Your task to perform on an android device: Search for sushi restaurants on Maps Image 0: 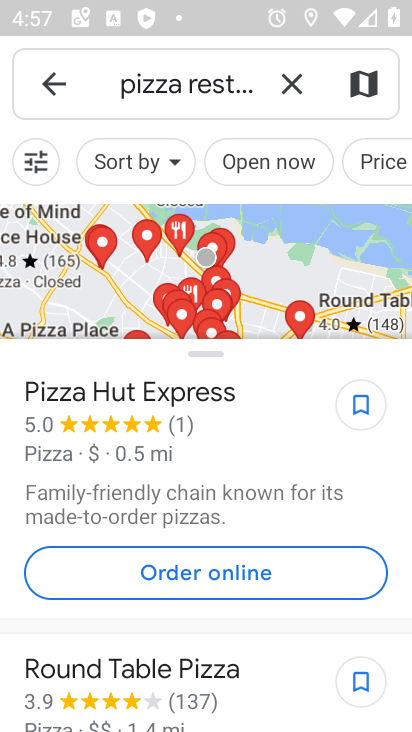
Step 0: press home button
Your task to perform on an android device: Search for sushi restaurants on Maps Image 1: 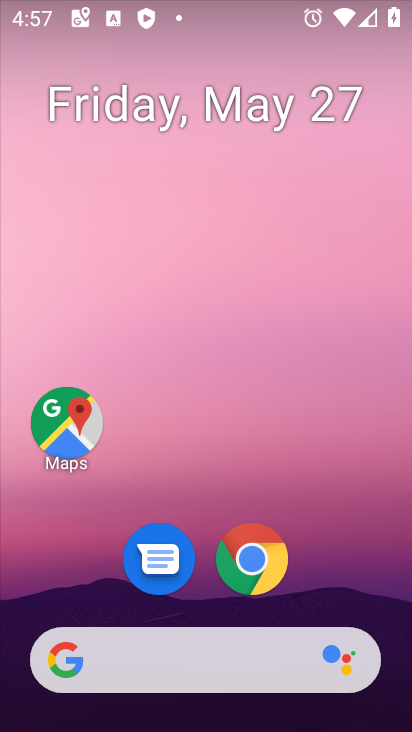
Step 1: drag from (218, 633) to (299, 75)
Your task to perform on an android device: Search for sushi restaurants on Maps Image 2: 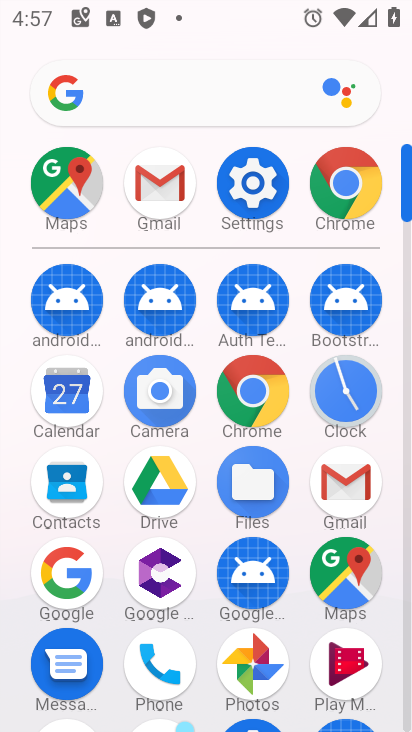
Step 2: click (365, 574)
Your task to perform on an android device: Search for sushi restaurants on Maps Image 3: 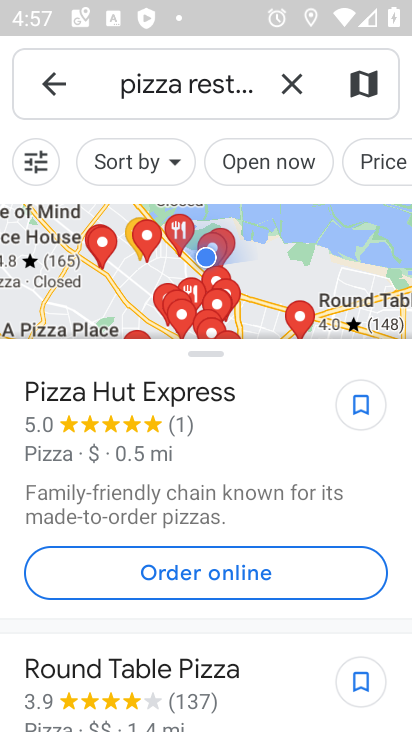
Step 3: press back button
Your task to perform on an android device: Search for sushi restaurants on Maps Image 4: 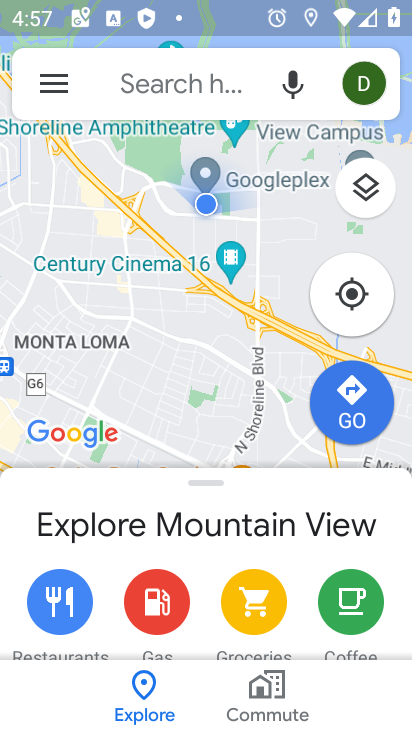
Step 4: click (143, 91)
Your task to perform on an android device: Search for sushi restaurants on Maps Image 5: 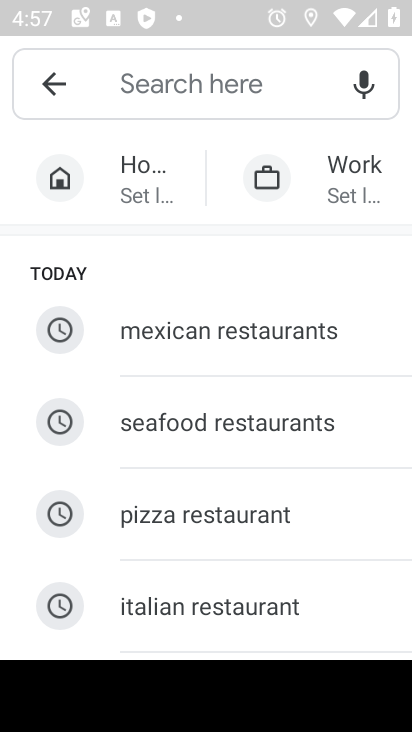
Step 5: drag from (228, 594) to (263, 175)
Your task to perform on an android device: Search for sushi restaurants on Maps Image 6: 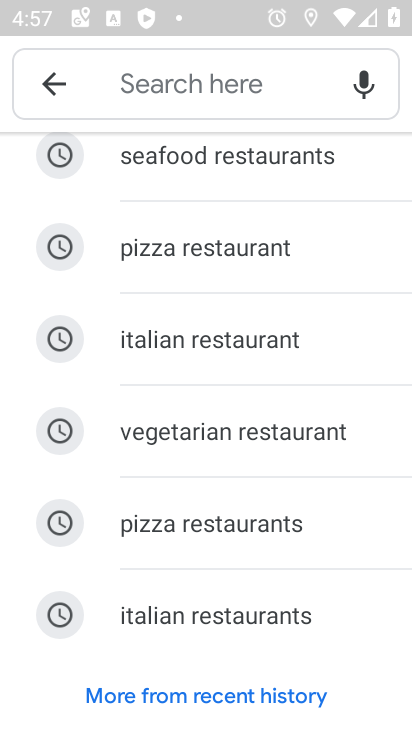
Step 6: click (270, 78)
Your task to perform on an android device: Search for sushi restaurants on Maps Image 7: 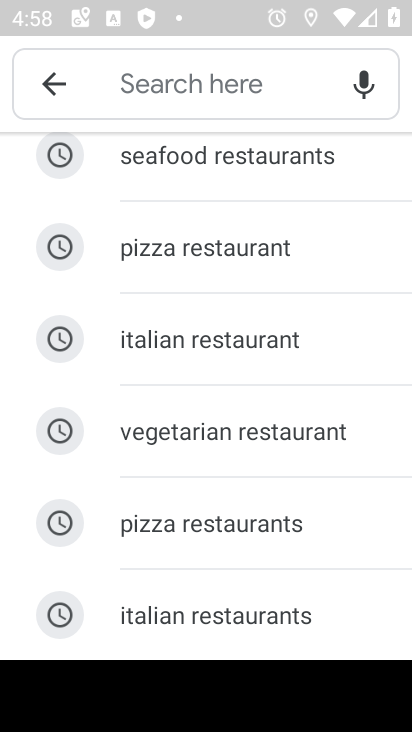
Step 7: type "sushi restaurant"
Your task to perform on an android device: Search for sushi restaurants on Maps Image 8: 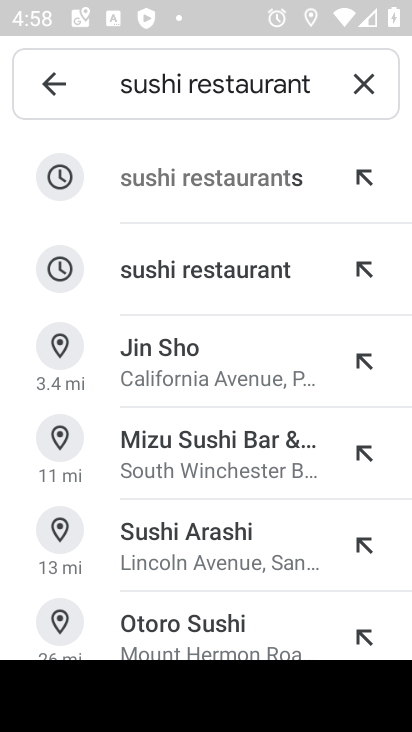
Step 8: click (205, 260)
Your task to perform on an android device: Search for sushi restaurants on Maps Image 9: 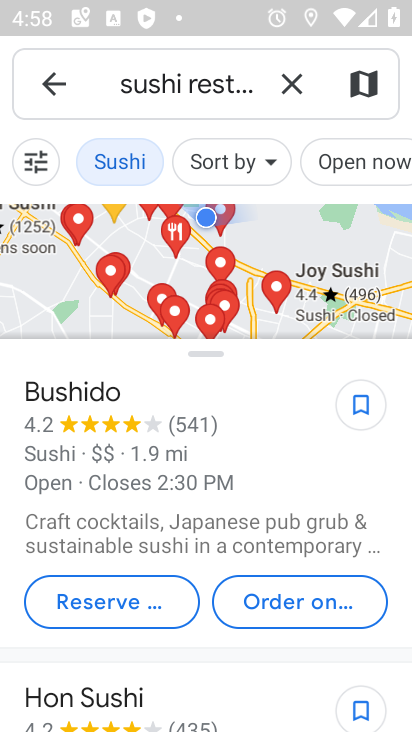
Step 9: task complete